Your task to perform on an android device: Open the map Image 0: 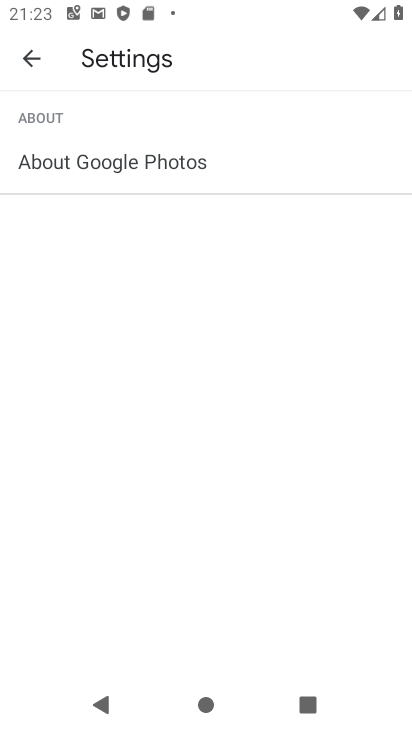
Step 0: press home button
Your task to perform on an android device: Open the map Image 1: 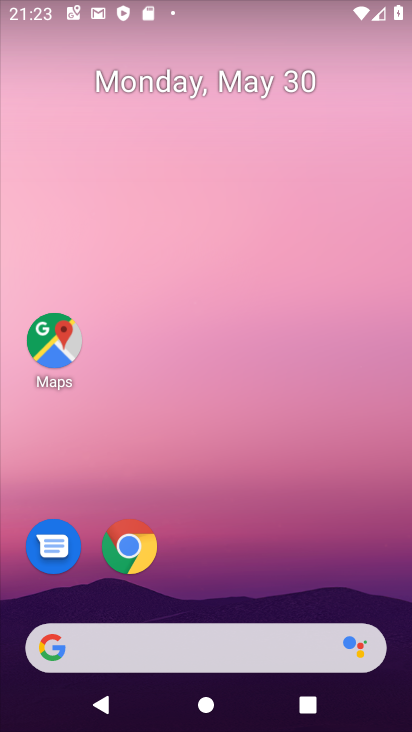
Step 1: drag from (337, 574) to (338, 104)
Your task to perform on an android device: Open the map Image 2: 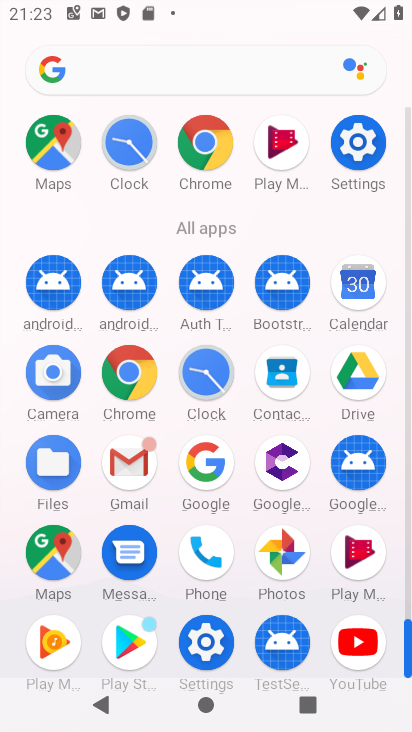
Step 2: click (32, 557)
Your task to perform on an android device: Open the map Image 3: 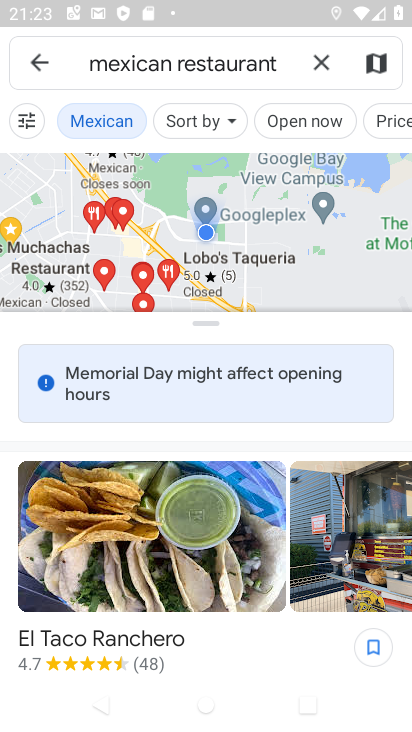
Step 3: task complete